Your task to perform on an android device: Open Google Maps and go to "Timeline" Image 0: 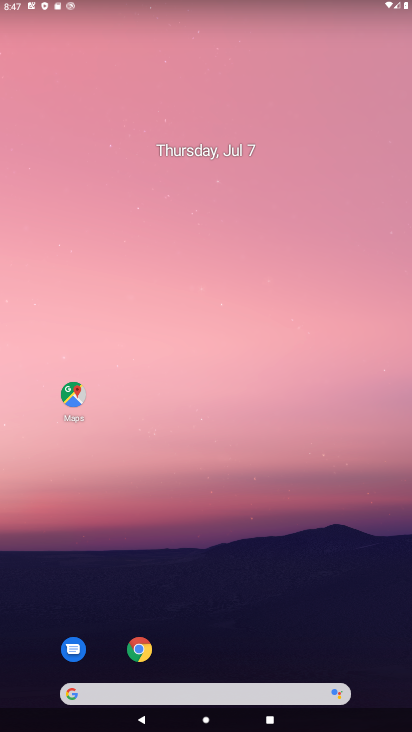
Step 0: drag from (224, 667) to (236, 269)
Your task to perform on an android device: Open Google Maps and go to "Timeline" Image 1: 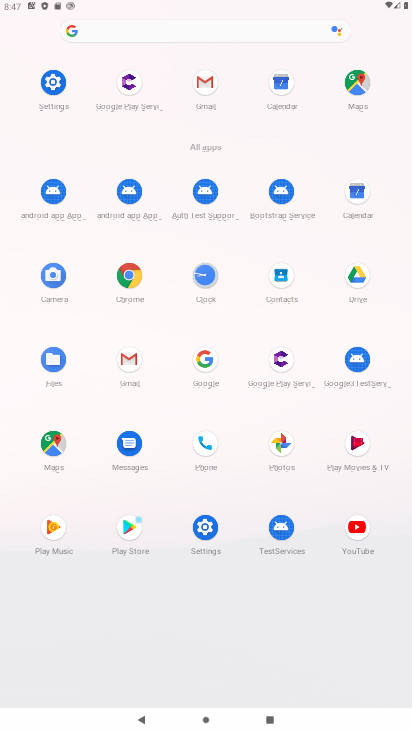
Step 1: click (55, 442)
Your task to perform on an android device: Open Google Maps and go to "Timeline" Image 2: 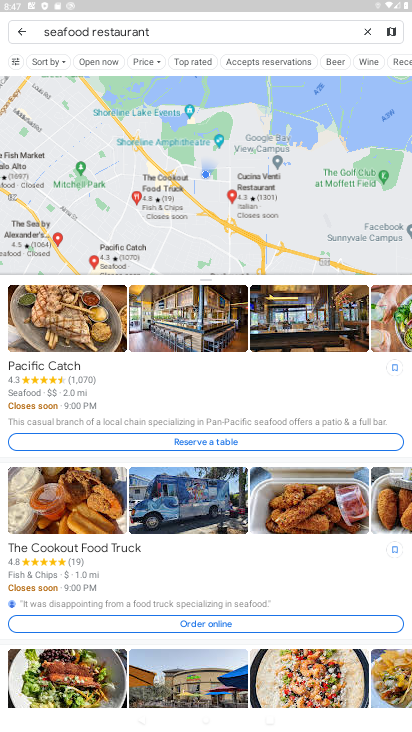
Step 2: click (22, 30)
Your task to perform on an android device: Open Google Maps and go to "Timeline" Image 3: 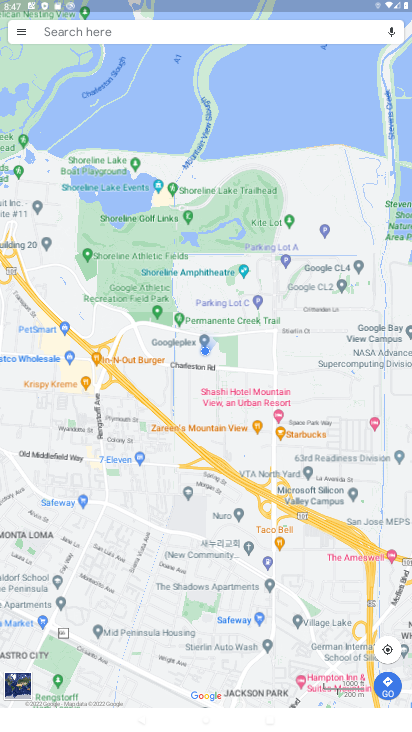
Step 3: click (21, 32)
Your task to perform on an android device: Open Google Maps and go to "Timeline" Image 4: 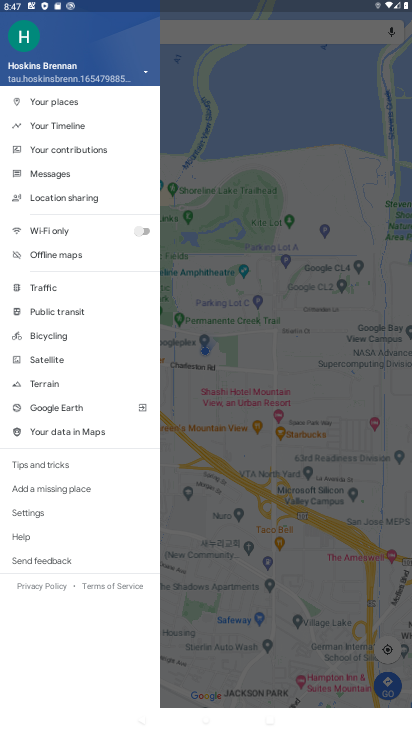
Step 4: click (42, 125)
Your task to perform on an android device: Open Google Maps and go to "Timeline" Image 5: 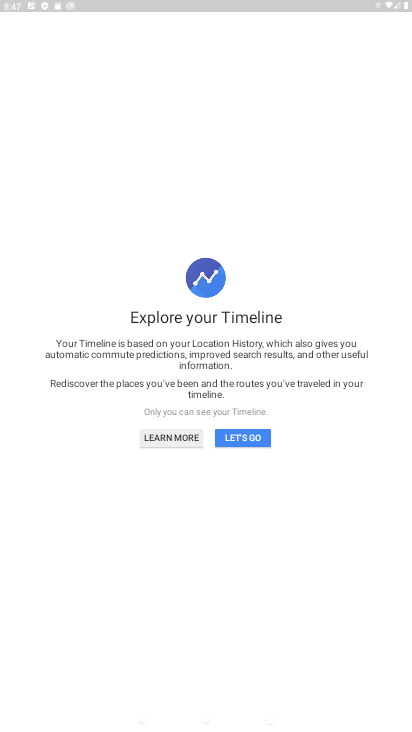
Step 5: click (232, 439)
Your task to perform on an android device: Open Google Maps and go to "Timeline" Image 6: 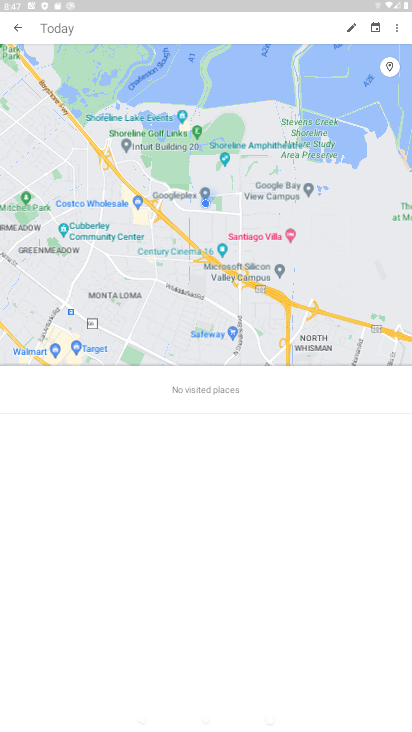
Step 6: task complete